Your task to perform on an android device: open sync settings in chrome Image 0: 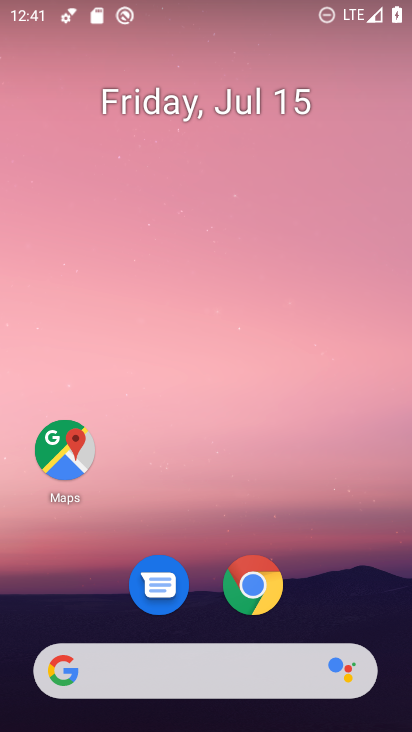
Step 0: click (249, 590)
Your task to perform on an android device: open sync settings in chrome Image 1: 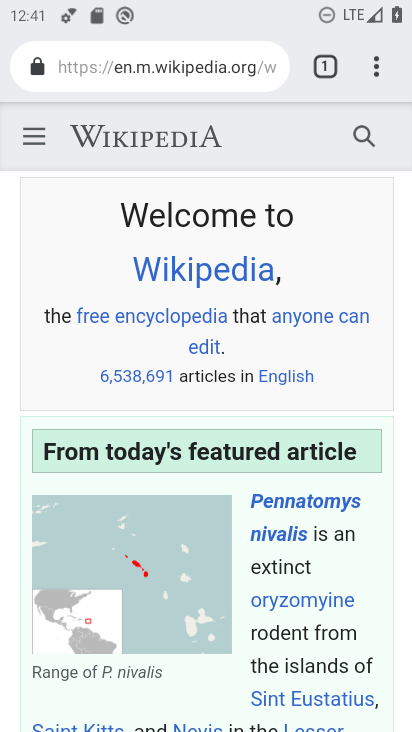
Step 1: click (376, 71)
Your task to perform on an android device: open sync settings in chrome Image 2: 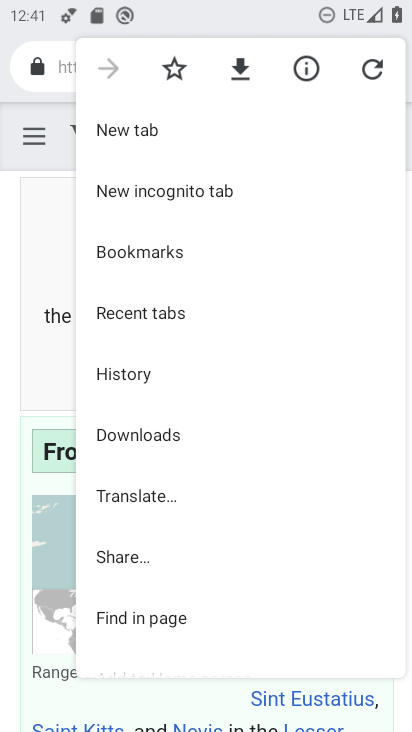
Step 2: drag from (240, 561) to (235, 216)
Your task to perform on an android device: open sync settings in chrome Image 3: 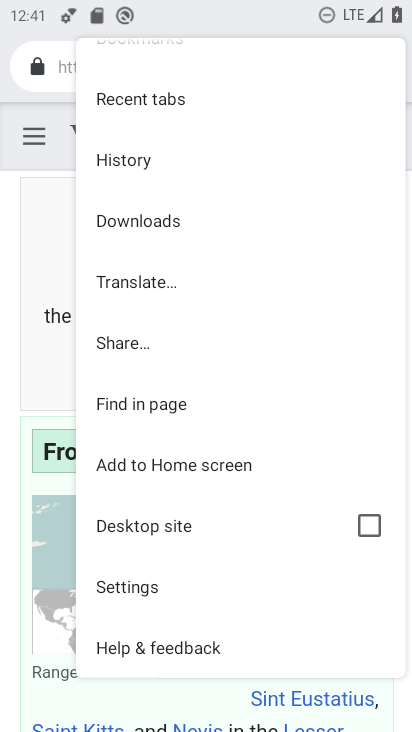
Step 3: click (133, 579)
Your task to perform on an android device: open sync settings in chrome Image 4: 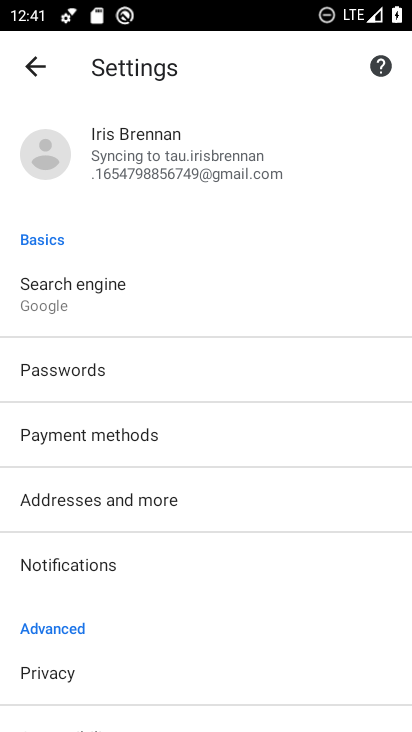
Step 4: click (154, 149)
Your task to perform on an android device: open sync settings in chrome Image 5: 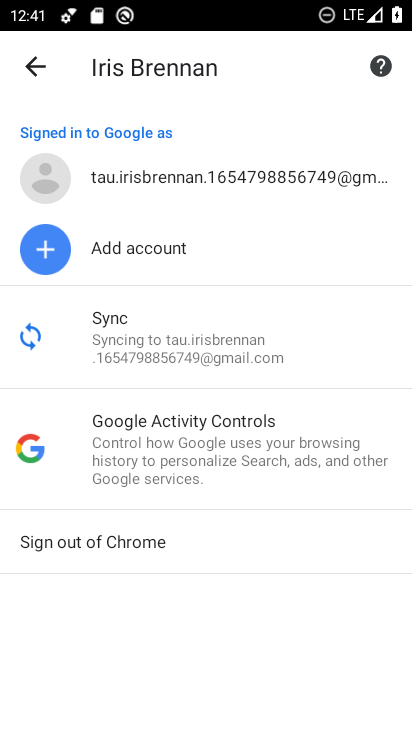
Step 5: click (140, 329)
Your task to perform on an android device: open sync settings in chrome Image 6: 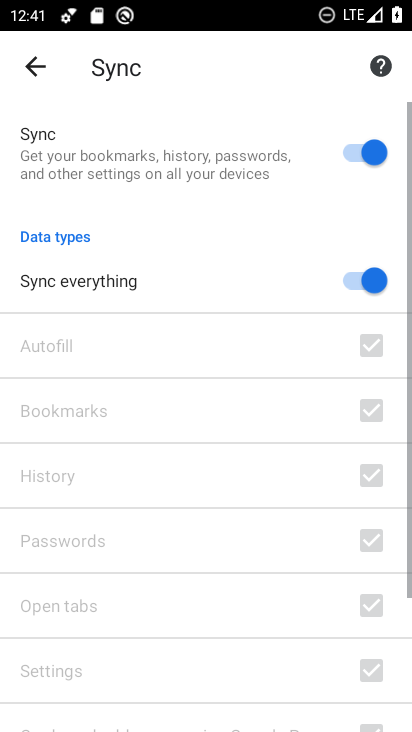
Step 6: task complete